Your task to perform on an android device: Open Maps and search for coffee Image 0: 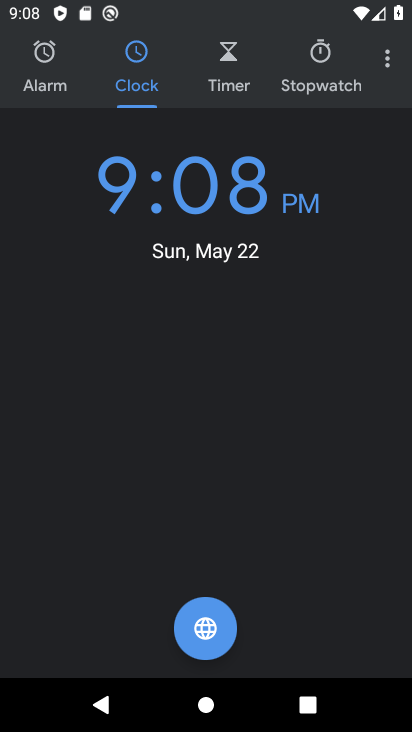
Step 0: click (402, 309)
Your task to perform on an android device: Open Maps and search for coffee Image 1: 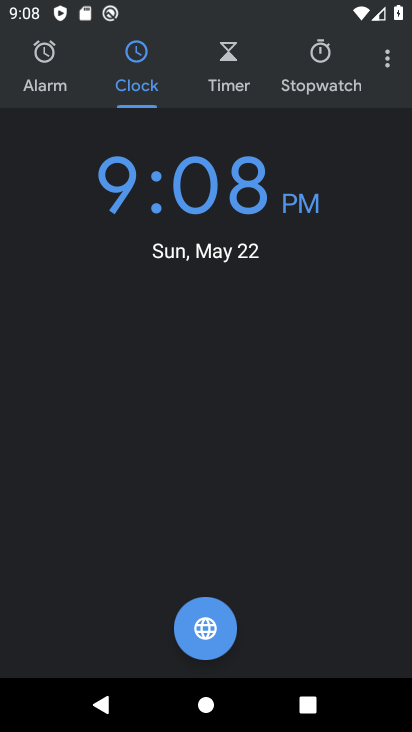
Step 1: press home button
Your task to perform on an android device: Open Maps and search for coffee Image 2: 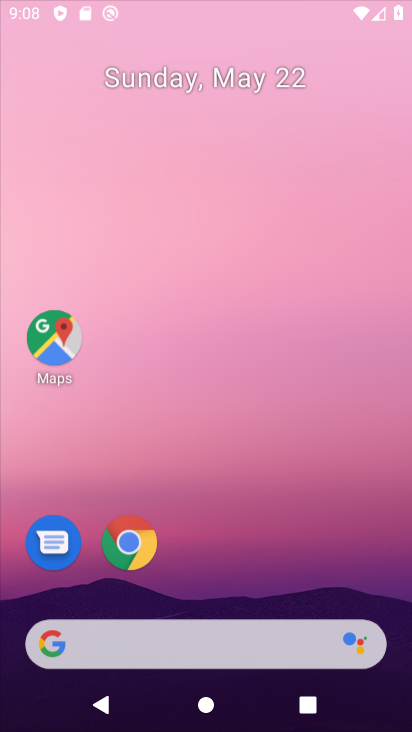
Step 2: drag from (240, 569) to (299, 108)
Your task to perform on an android device: Open Maps and search for coffee Image 3: 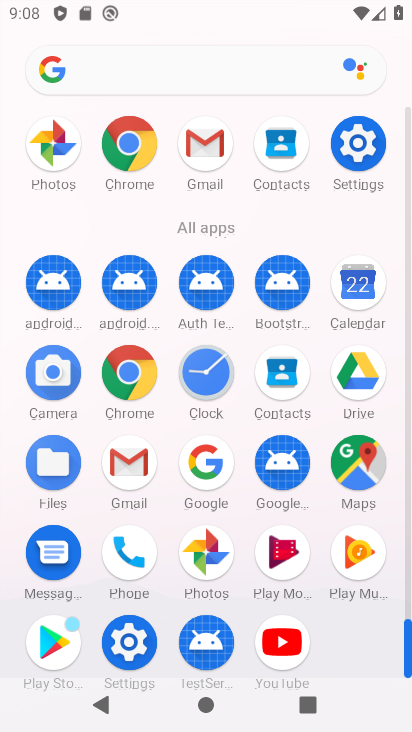
Step 3: click (367, 465)
Your task to perform on an android device: Open Maps and search for coffee Image 4: 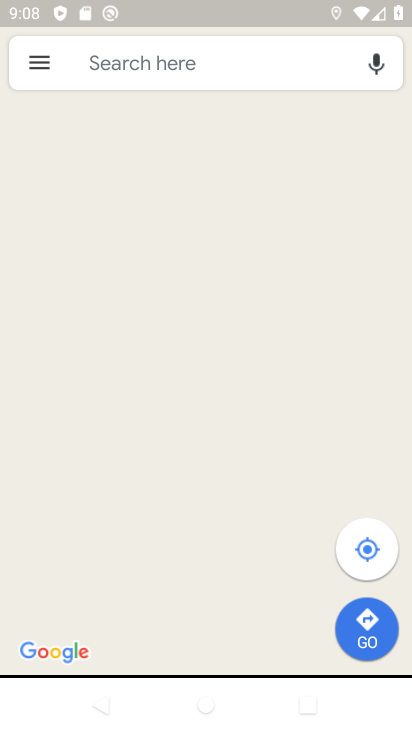
Step 4: click (134, 77)
Your task to perform on an android device: Open Maps and search for coffee Image 5: 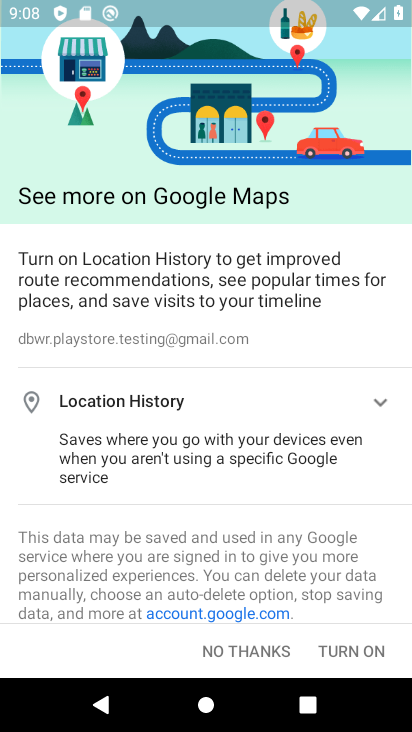
Step 5: click (346, 642)
Your task to perform on an android device: Open Maps and search for coffee Image 6: 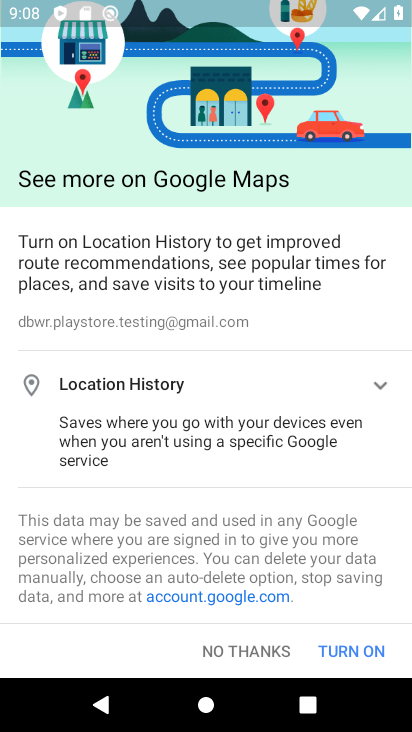
Step 6: click (335, 632)
Your task to perform on an android device: Open Maps and search for coffee Image 7: 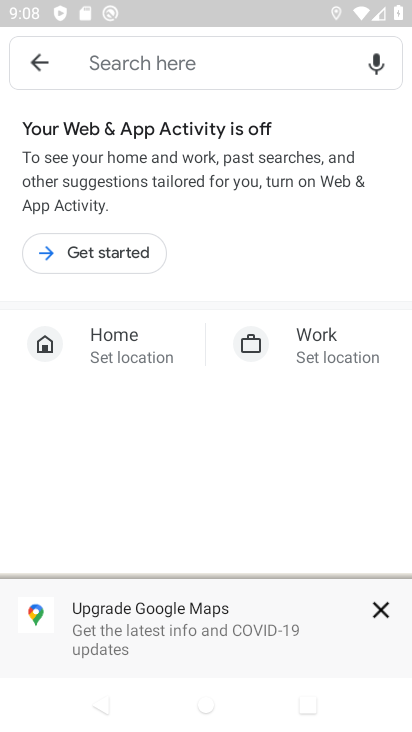
Step 7: click (373, 615)
Your task to perform on an android device: Open Maps and search for coffee Image 8: 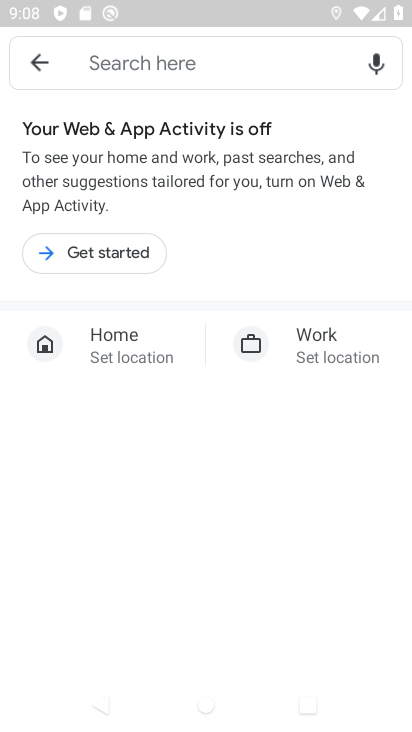
Step 8: click (110, 49)
Your task to perform on an android device: Open Maps and search for coffee Image 9: 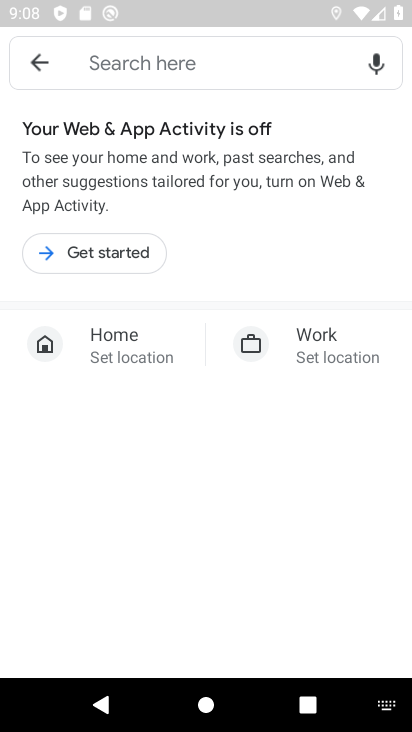
Step 9: type "coffee"
Your task to perform on an android device: Open Maps and search for coffee Image 10: 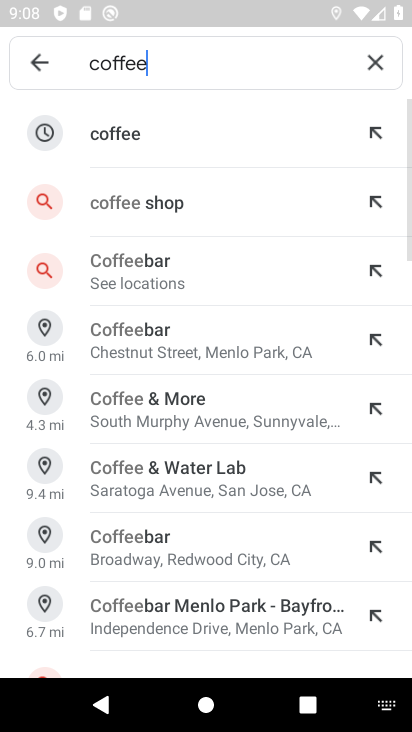
Step 10: click (166, 147)
Your task to perform on an android device: Open Maps and search for coffee Image 11: 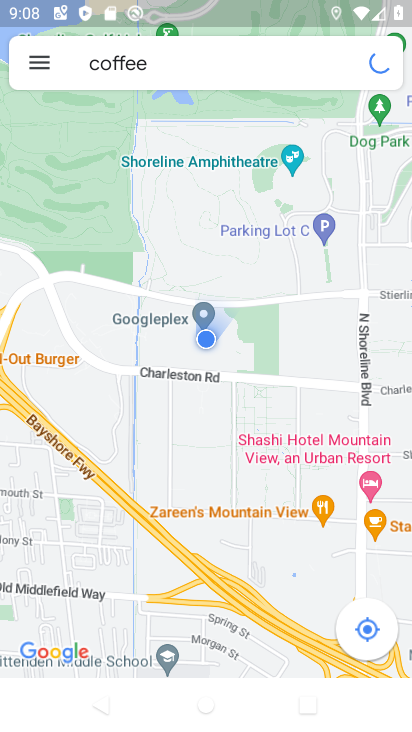
Step 11: task complete